Your task to perform on an android device: change the clock display to analog Image 0: 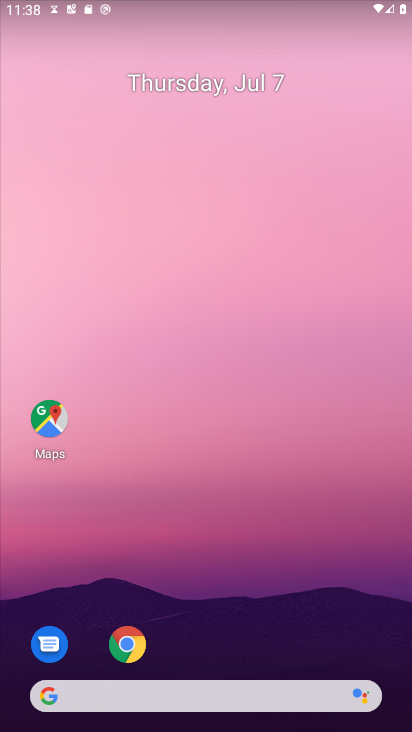
Step 0: press home button
Your task to perform on an android device: change the clock display to analog Image 1: 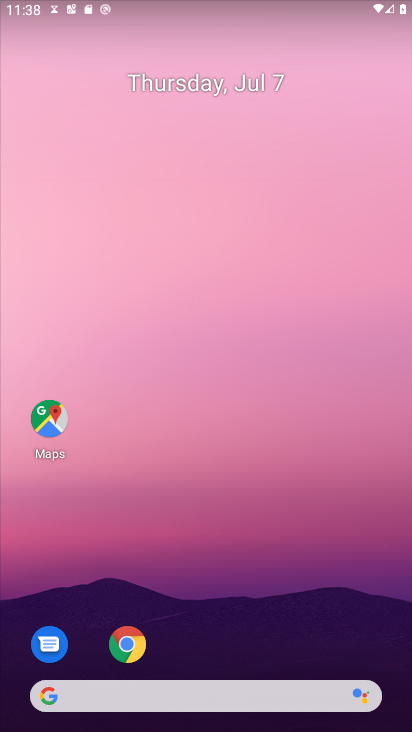
Step 1: drag from (216, 610) to (241, 161)
Your task to perform on an android device: change the clock display to analog Image 2: 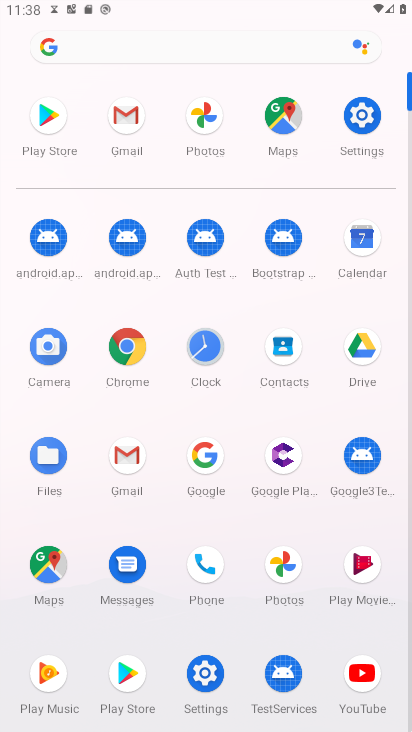
Step 2: click (212, 353)
Your task to perform on an android device: change the clock display to analog Image 3: 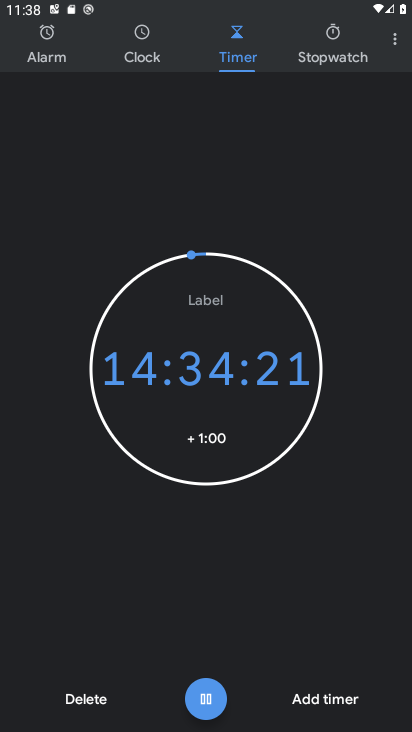
Step 3: click (397, 39)
Your task to perform on an android device: change the clock display to analog Image 4: 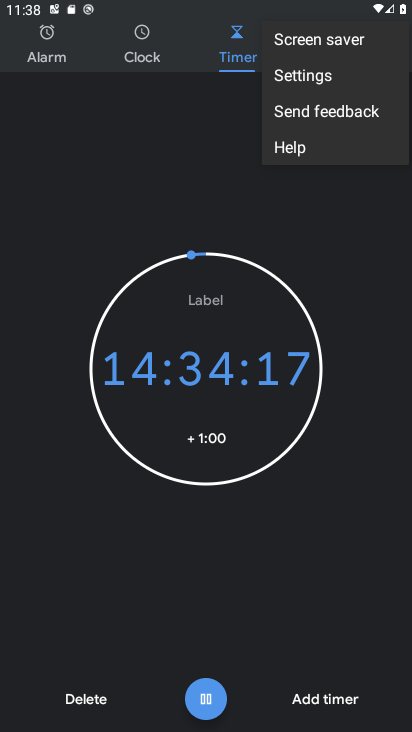
Step 4: click (326, 72)
Your task to perform on an android device: change the clock display to analog Image 5: 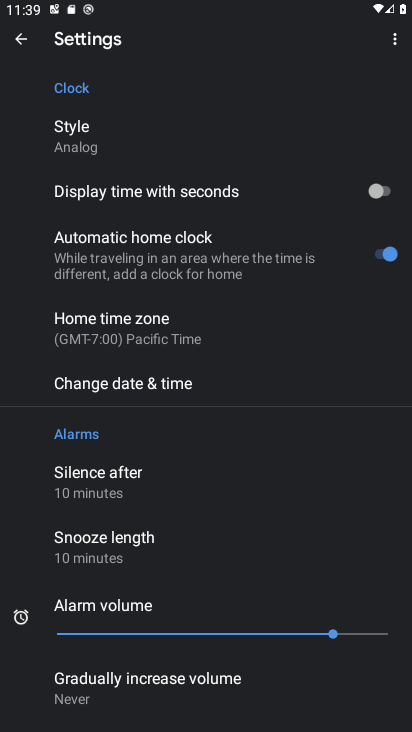
Step 5: click (56, 124)
Your task to perform on an android device: change the clock display to analog Image 6: 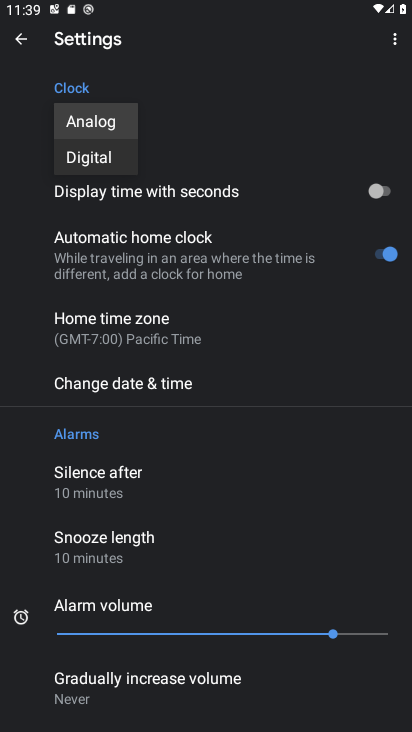
Step 6: task complete